Your task to perform on an android device: change the clock style Image 0: 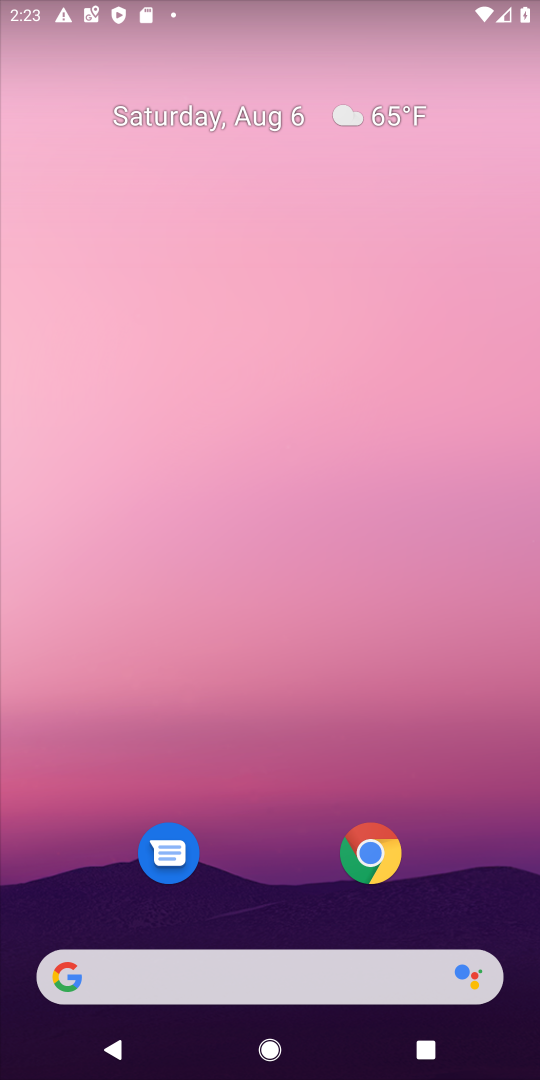
Step 0: drag from (306, 842) to (410, 116)
Your task to perform on an android device: change the clock style Image 1: 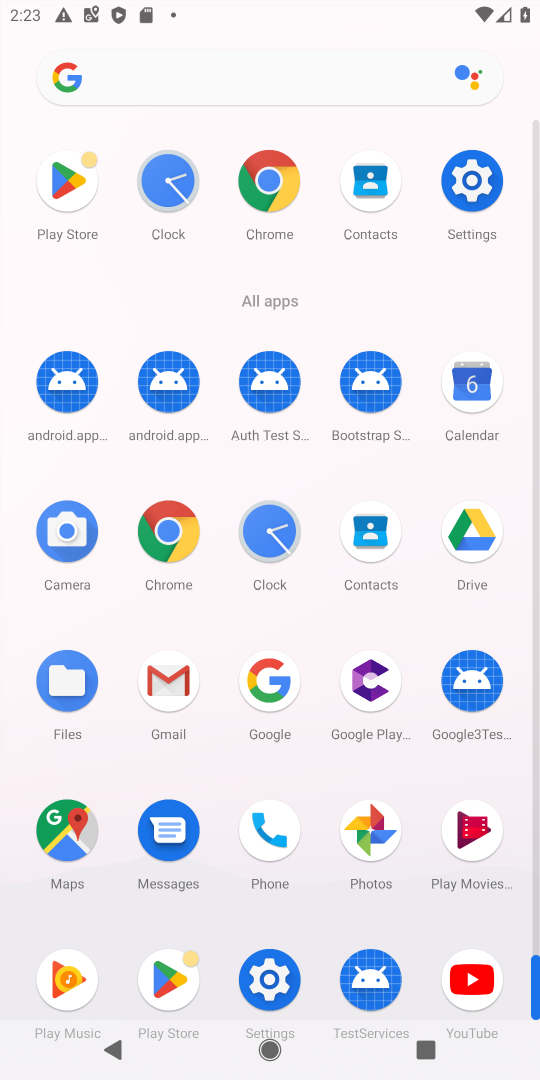
Step 1: click (175, 168)
Your task to perform on an android device: change the clock style Image 2: 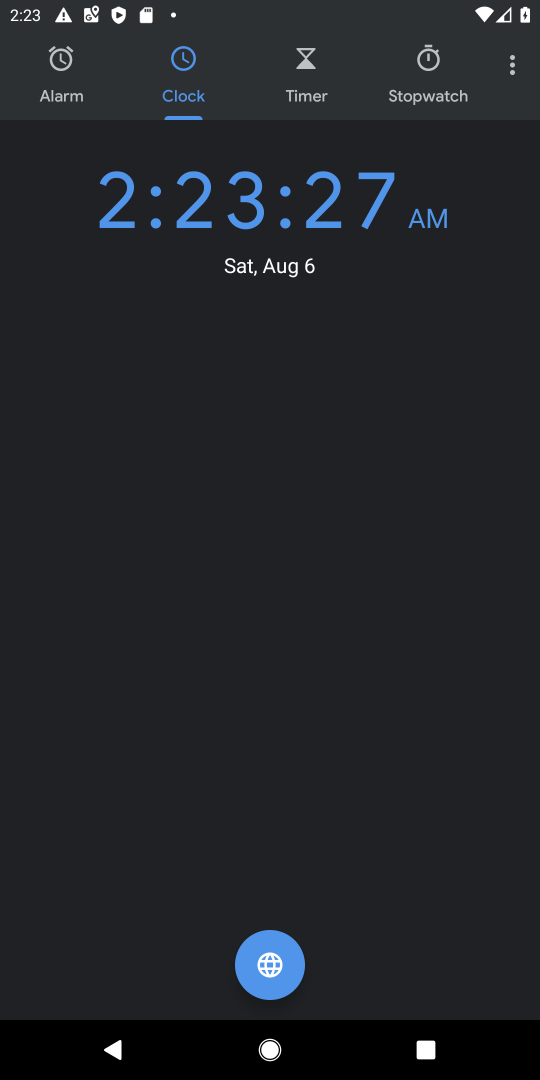
Step 2: click (513, 75)
Your task to perform on an android device: change the clock style Image 3: 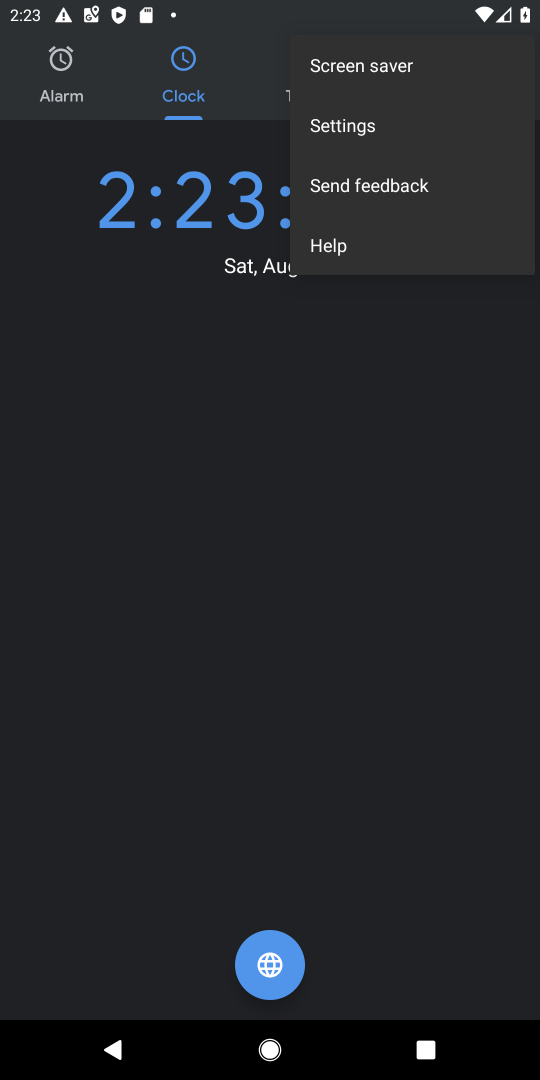
Step 3: click (355, 127)
Your task to perform on an android device: change the clock style Image 4: 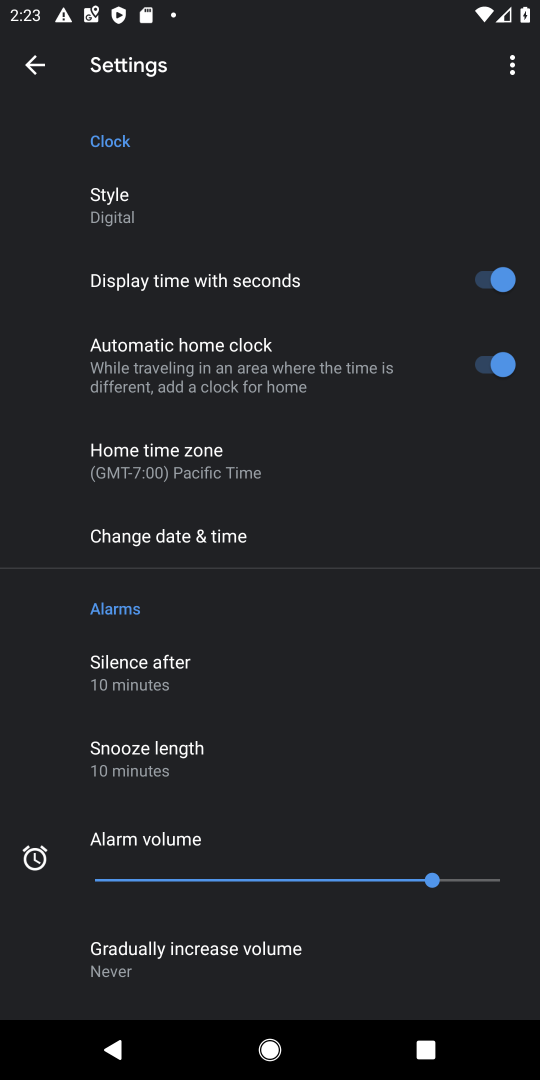
Step 4: click (187, 194)
Your task to perform on an android device: change the clock style Image 5: 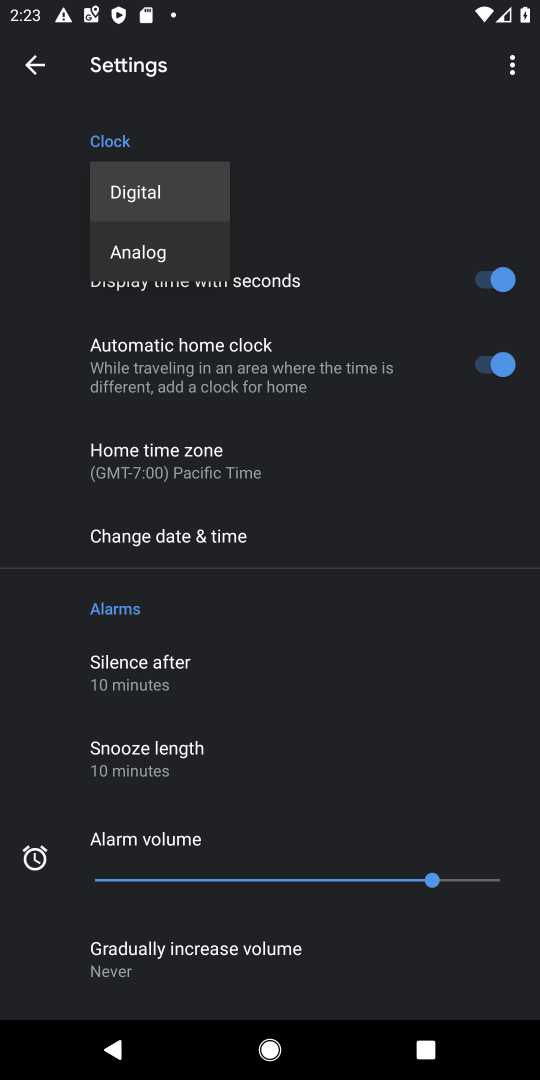
Step 5: click (153, 243)
Your task to perform on an android device: change the clock style Image 6: 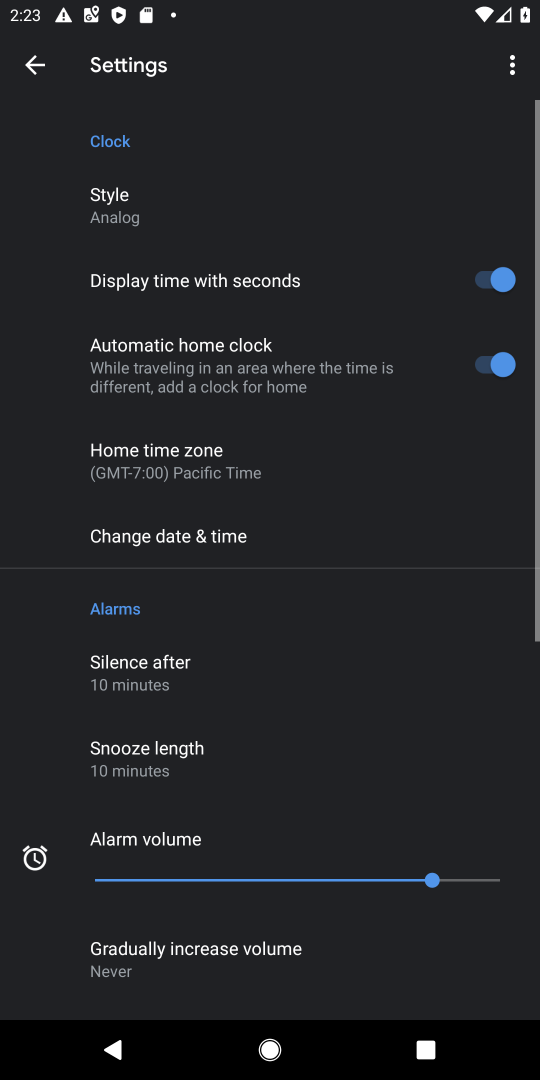
Step 6: task complete